Your task to perform on an android device: change alarm snooze length Image 0: 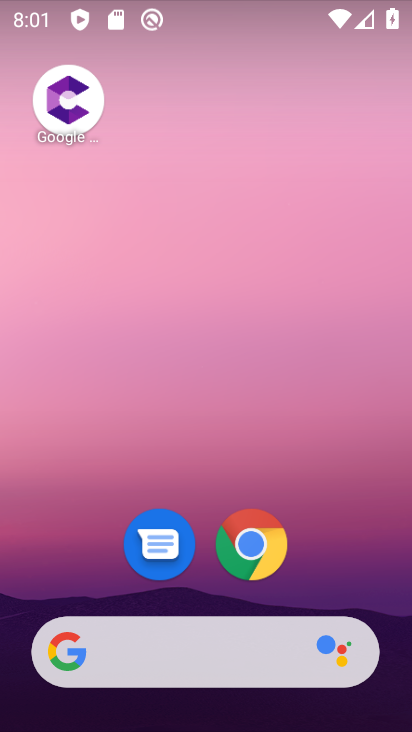
Step 0: drag from (351, 524) to (275, 3)
Your task to perform on an android device: change alarm snooze length Image 1: 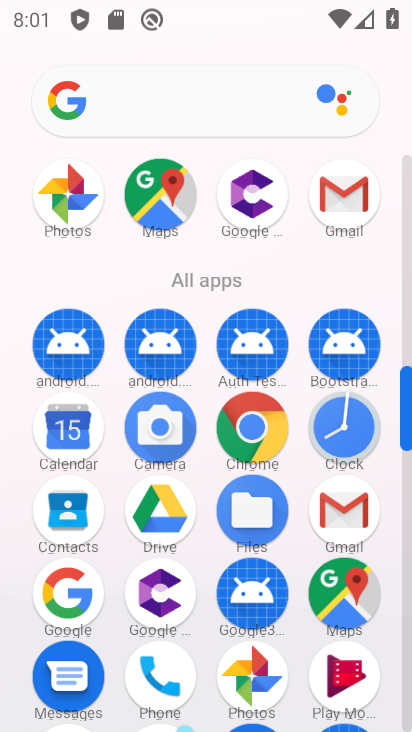
Step 1: click (343, 425)
Your task to perform on an android device: change alarm snooze length Image 2: 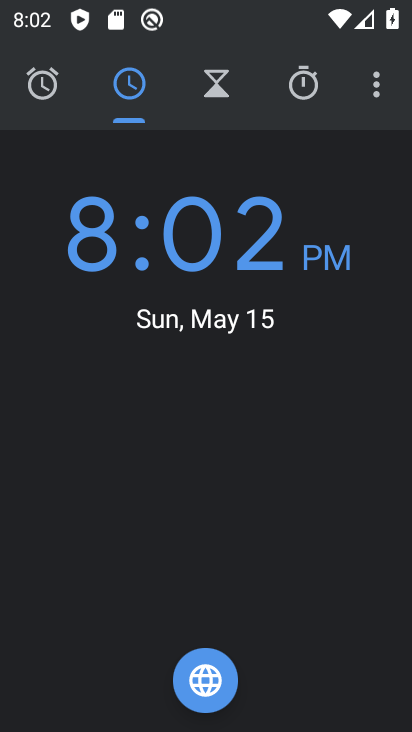
Step 2: click (369, 72)
Your task to perform on an android device: change alarm snooze length Image 3: 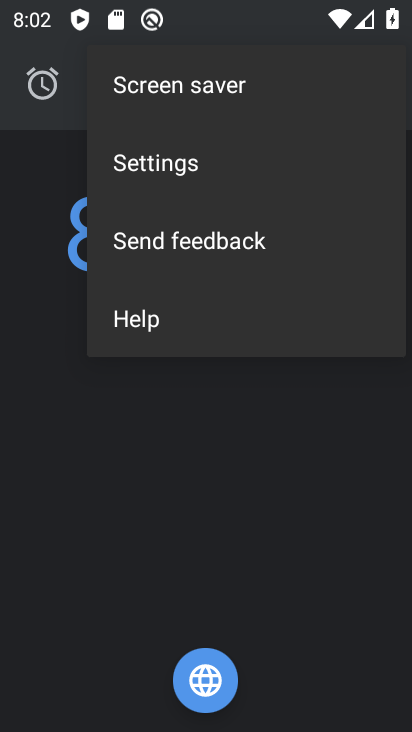
Step 3: click (192, 141)
Your task to perform on an android device: change alarm snooze length Image 4: 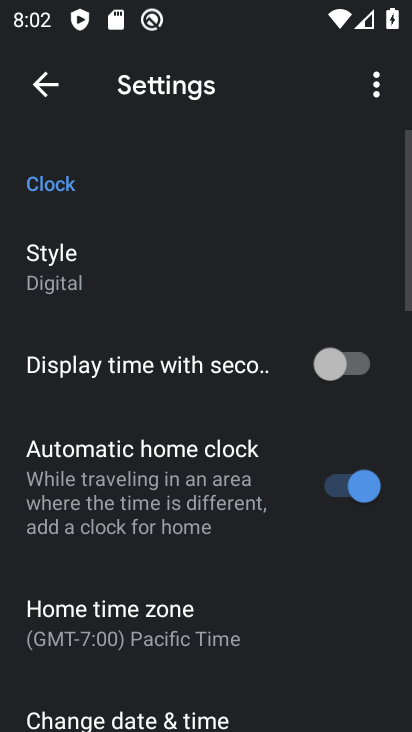
Step 4: drag from (126, 547) to (214, 121)
Your task to perform on an android device: change alarm snooze length Image 5: 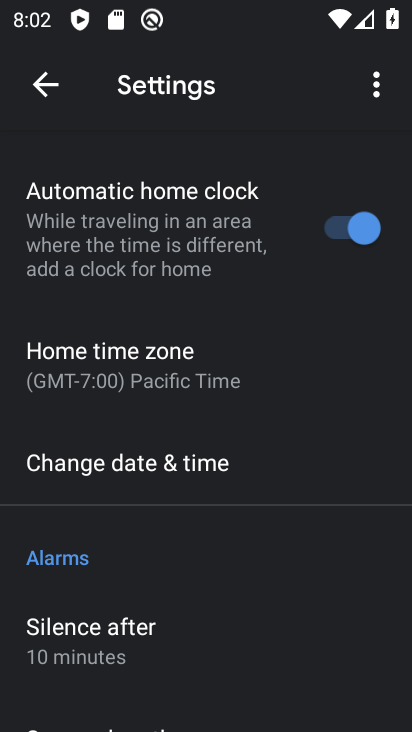
Step 5: drag from (223, 380) to (284, 143)
Your task to perform on an android device: change alarm snooze length Image 6: 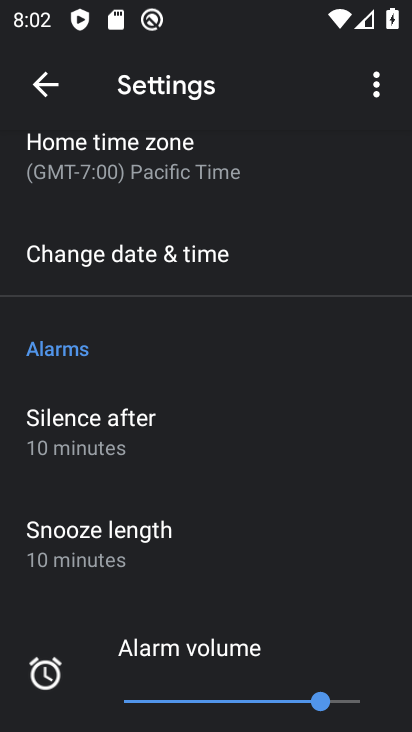
Step 6: click (142, 542)
Your task to perform on an android device: change alarm snooze length Image 7: 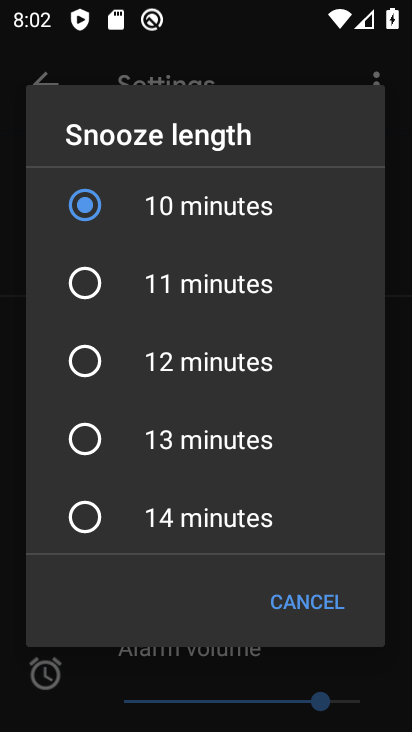
Step 7: click (222, 286)
Your task to perform on an android device: change alarm snooze length Image 8: 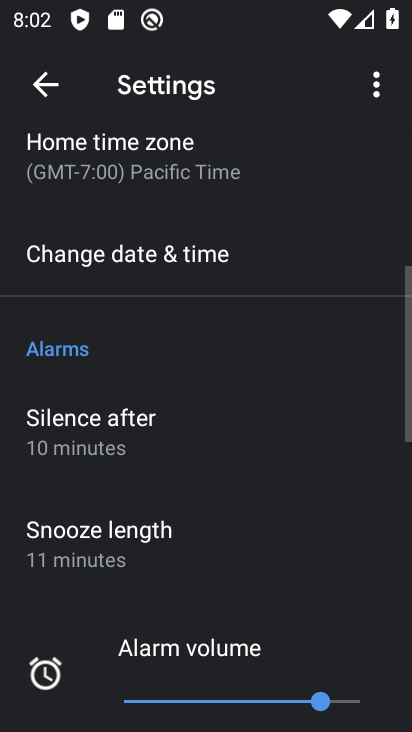
Step 8: task complete